Your task to perform on an android device: set the stopwatch Image 0: 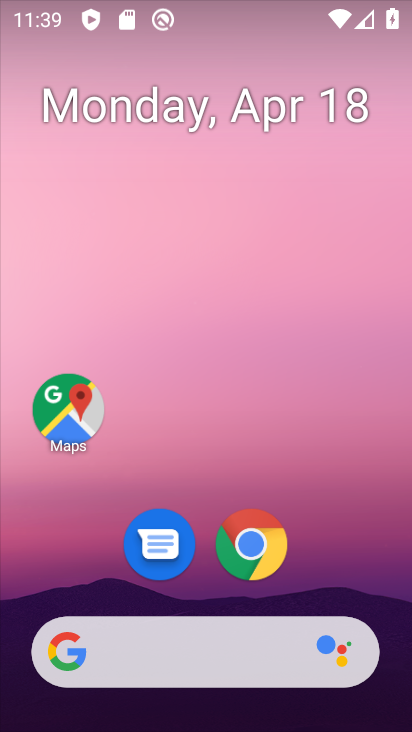
Step 0: drag from (347, 576) to (341, 9)
Your task to perform on an android device: set the stopwatch Image 1: 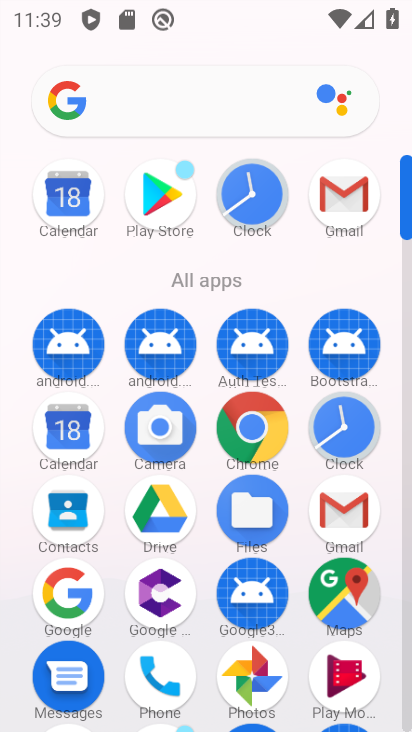
Step 1: click (256, 203)
Your task to perform on an android device: set the stopwatch Image 2: 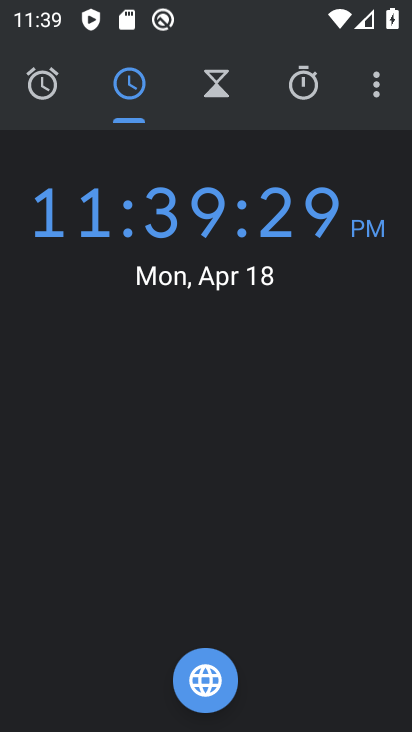
Step 2: click (294, 88)
Your task to perform on an android device: set the stopwatch Image 3: 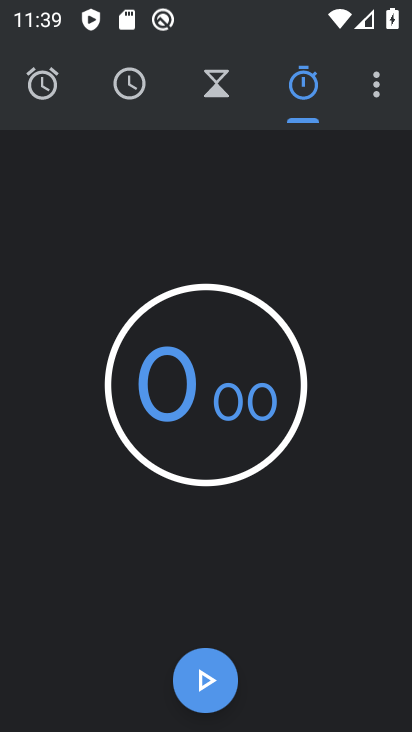
Step 3: click (217, 678)
Your task to perform on an android device: set the stopwatch Image 4: 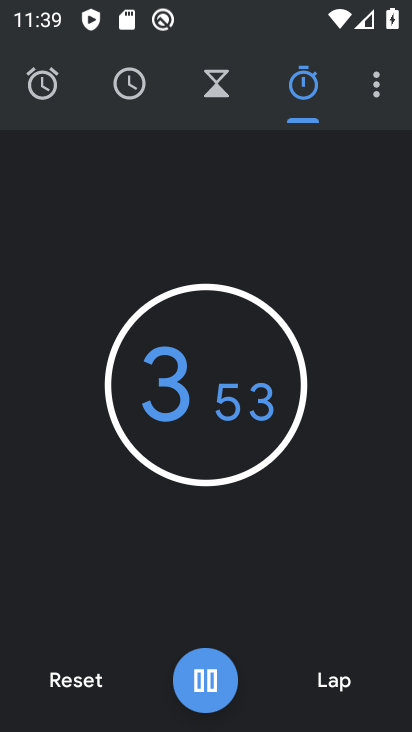
Step 4: click (203, 689)
Your task to perform on an android device: set the stopwatch Image 5: 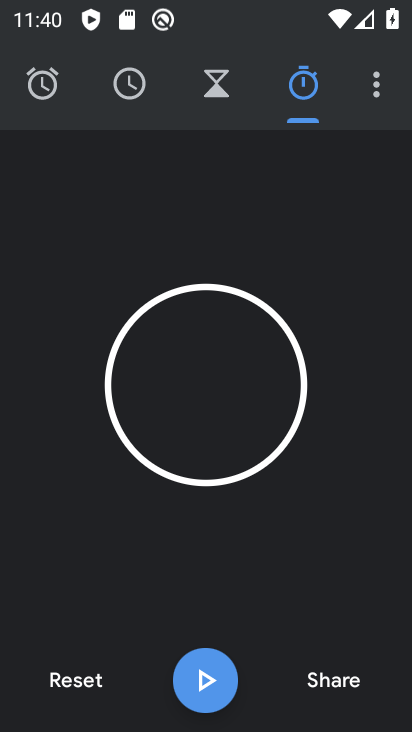
Step 5: task complete